Your task to perform on an android device: toggle show notifications on the lock screen Image 0: 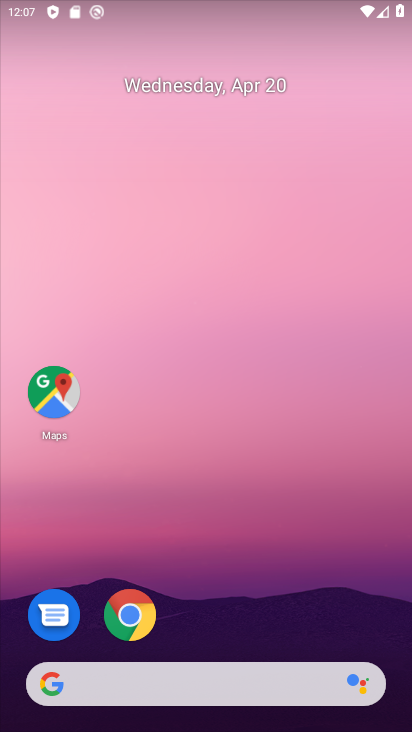
Step 0: drag from (240, 592) to (162, 167)
Your task to perform on an android device: toggle show notifications on the lock screen Image 1: 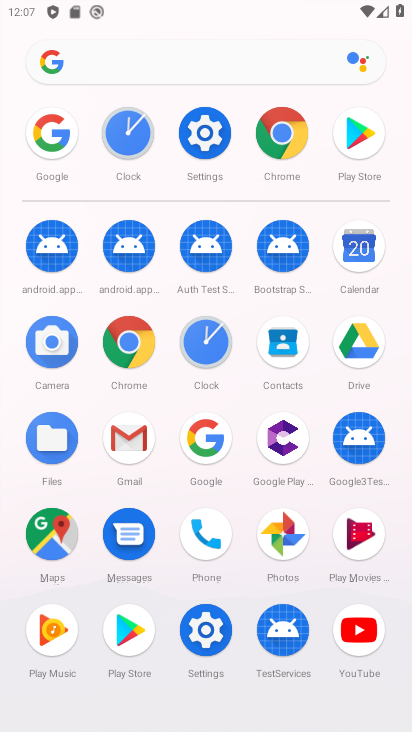
Step 1: click (206, 144)
Your task to perform on an android device: toggle show notifications on the lock screen Image 2: 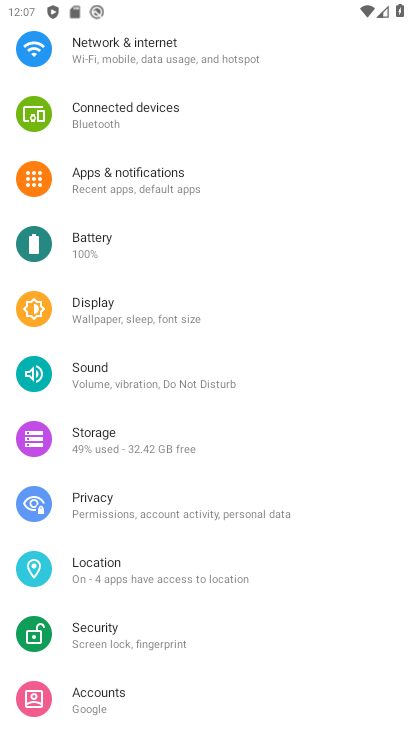
Step 2: click (174, 184)
Your task to perform on an android device: toggle show notifications on the lock screen Image 3: 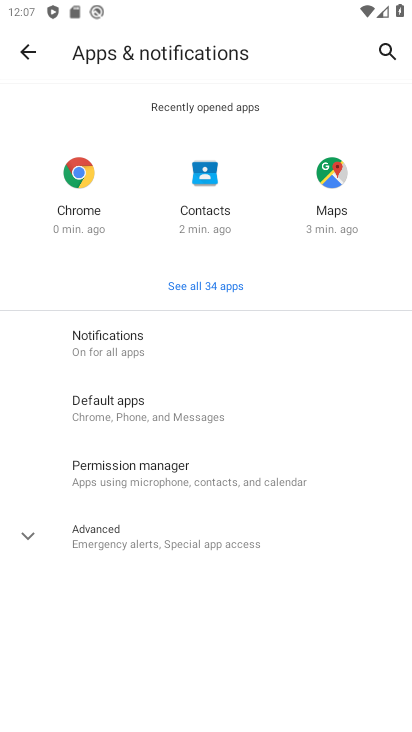
Step 3: click (164, 330)
Your task to perform on an android device: toggle show notifications on the lock screen Image 4: 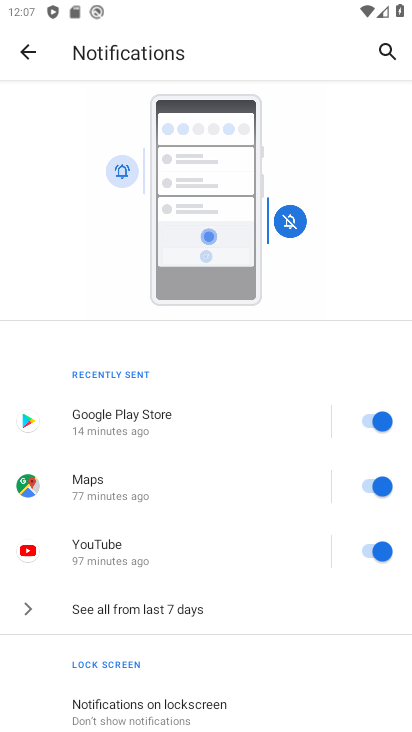
Step 4: drag from (205, 586) to (185, 276)
Your task to perform on an android device: toggle show notifications on the lock screen Image 5: 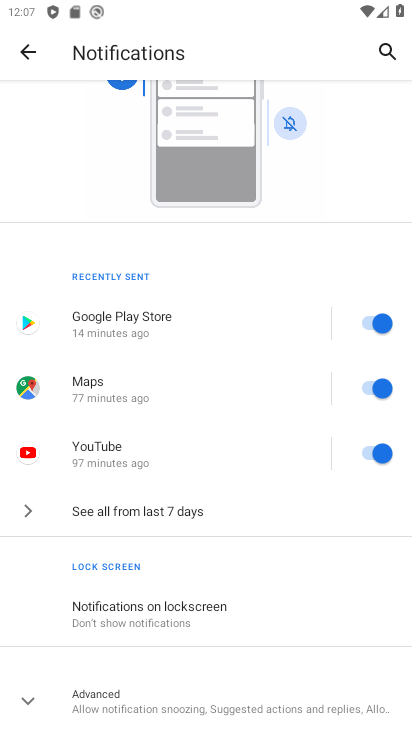
Step 5: click (137, 618)
Your task to perform on an android device: toggle show notifications on the lock screen Image 6: 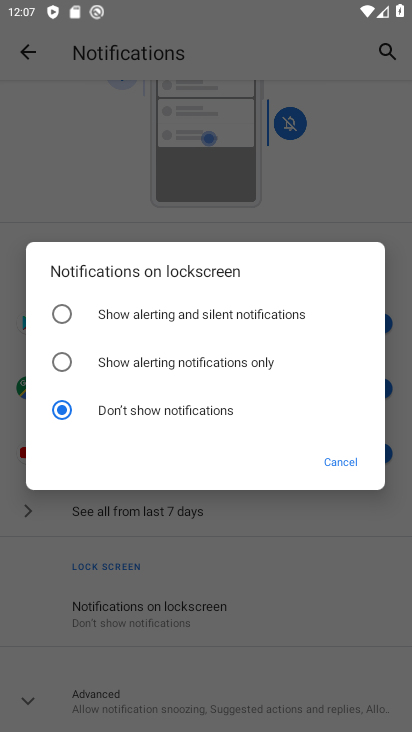
Step 6: click (60, 321)
Your task to perform on an android device: toggle show notifications on the lock screen Image 7: 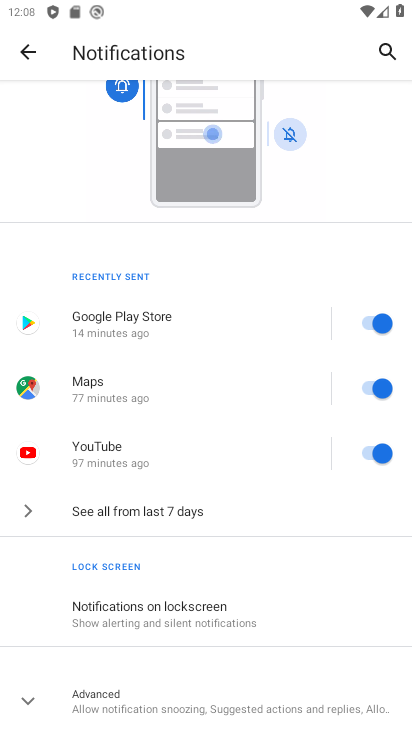
Step 7: task complete